Your task to perform on an android device: Turn off the flashlight Image 0: 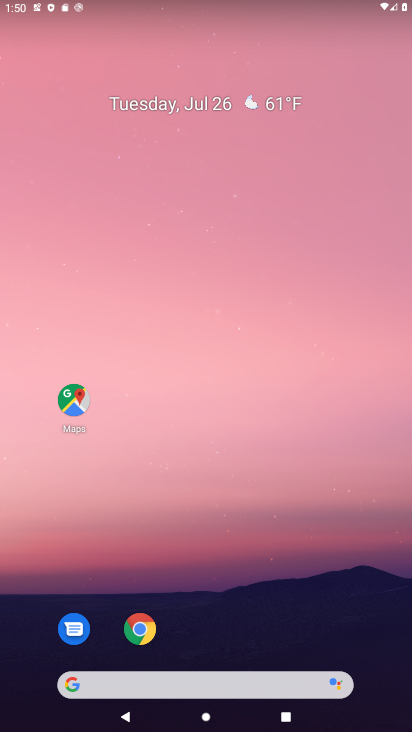
Step 0: drag from (212, 628) to (251, 50)
Your task to perform on an android device: Turn off the flashlight Image 1: 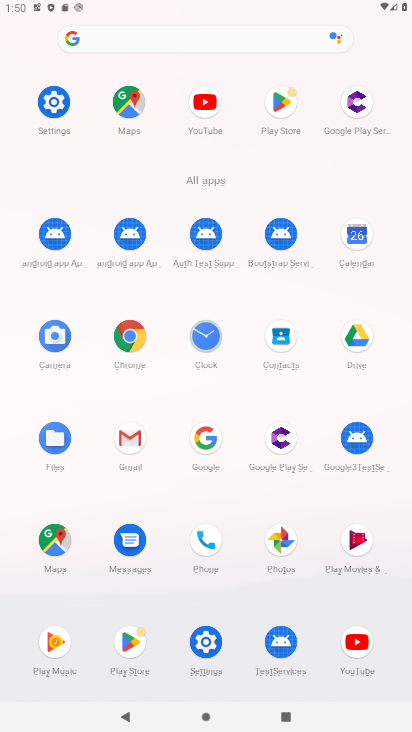
Step 1: click (46, 138)
Your task to perform on an android device: Turn off the flashlight Image 2: 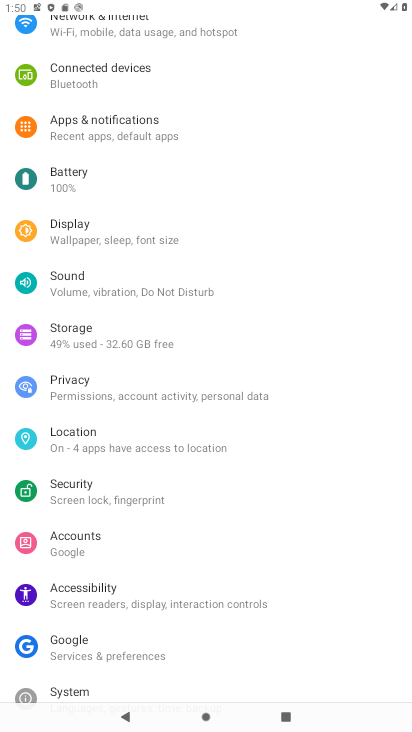
Step 2: task complete